Your task to perform on an android device: search for starred emails in the gmail app Image 0: 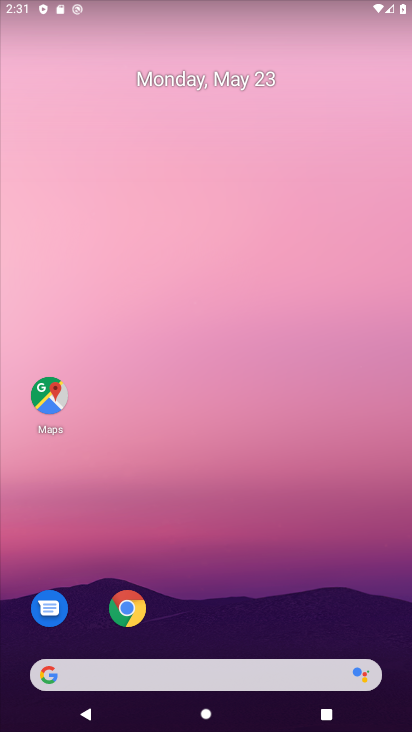
Step 0: drag from (182, 552) to (190, 242)
Your task to perform on an android device: search for starred emails in the gmail app Image 1: 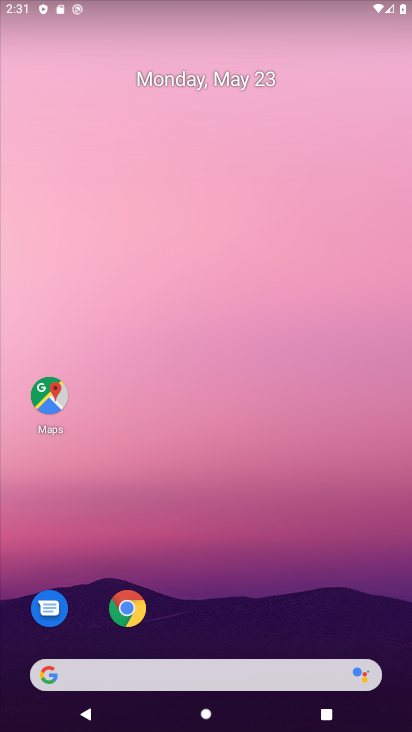
Step 1: drag from (213, 590) to (253, 210)
Your task to perform on an android device: search for starred emails in the gmail app Image 2: 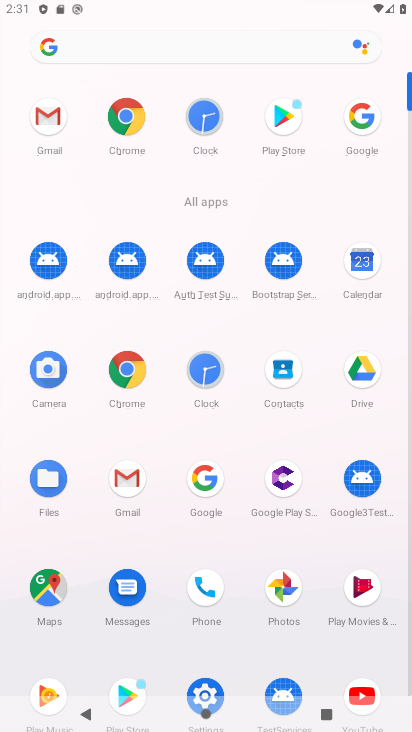
Step 2: click (126, 474)
Your task to perform on an android device: search for starred emails in the gmail app Image 3: 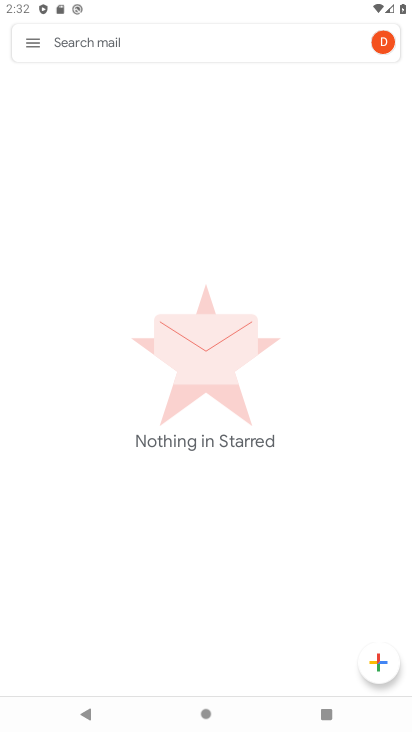
Step 3: click (32, 36)
Your task to perform on an android device: search for starred emails in the gmail app Image 4: 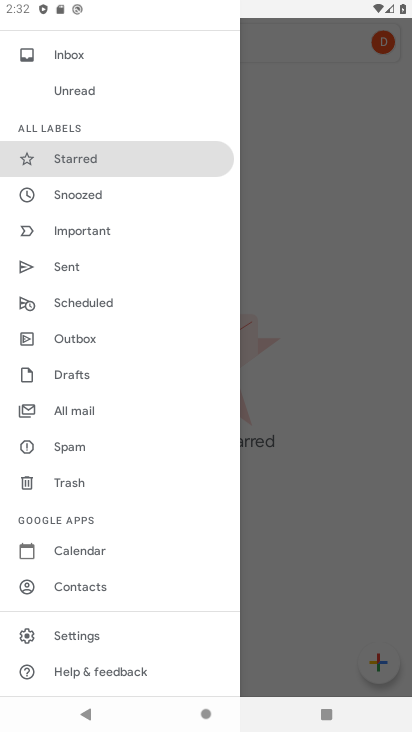
Step 4: task complete